Your task to perform on an android device: turn on translation in the chrome app Image 0: 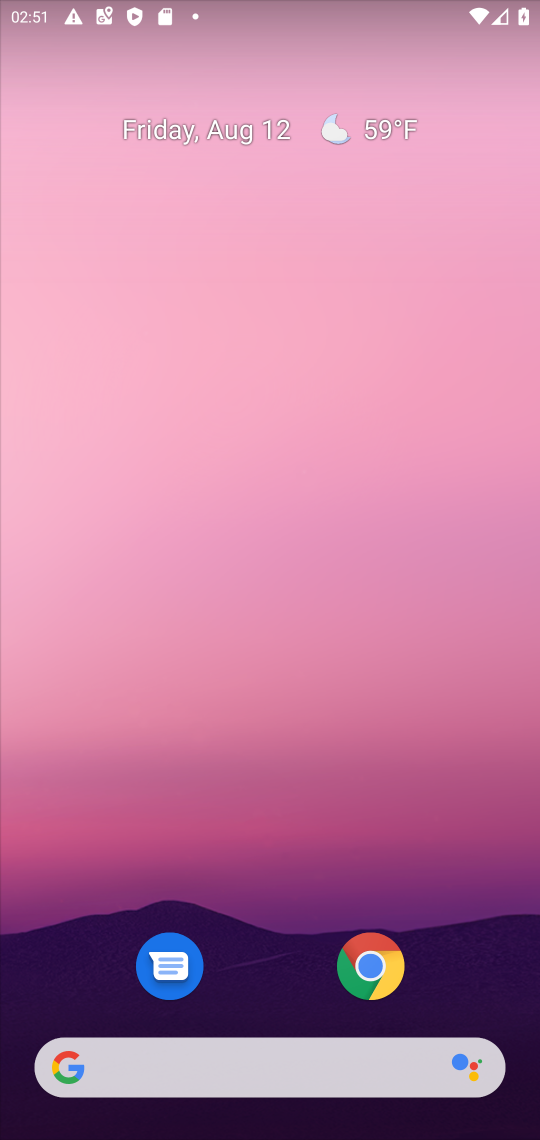
Step 0: click (378, 966)
Your task to perform on an android device: turn on translation in the chrome app Image 1: 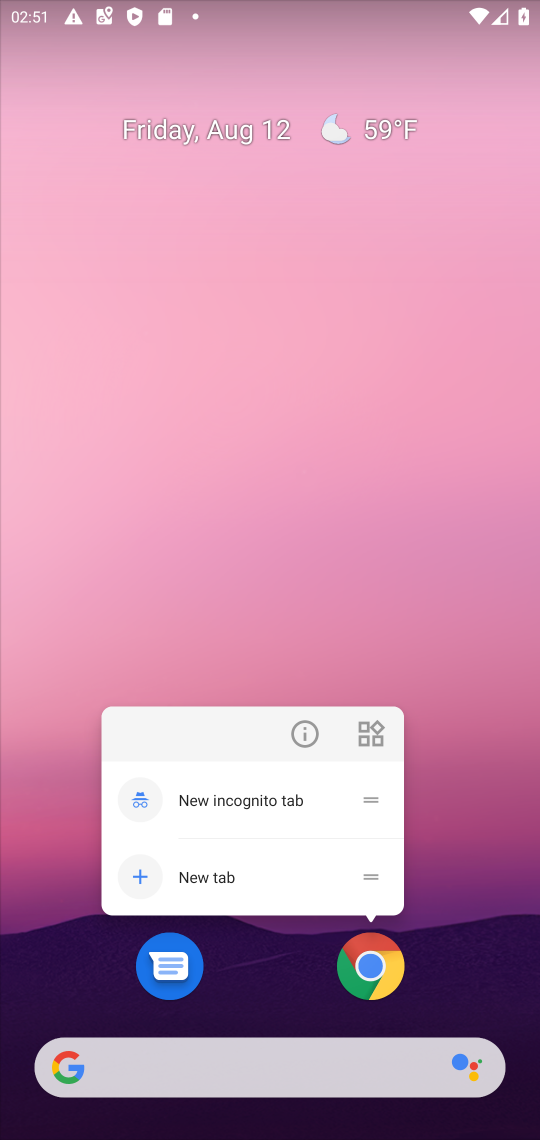
Step 1: click (374, 969)
Your task to perform on an android device: turn on translation in the chrome app Image 2: 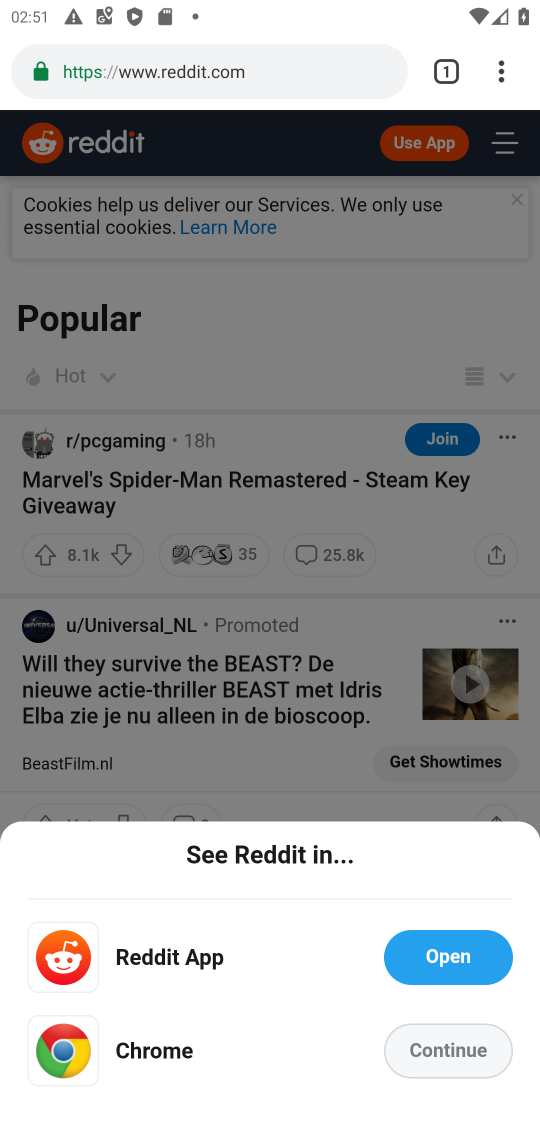
Step 2: drag from (515, 55) to (261, 868)
Your task to perform on an android device: turn on translation in the chrome app Image 3: 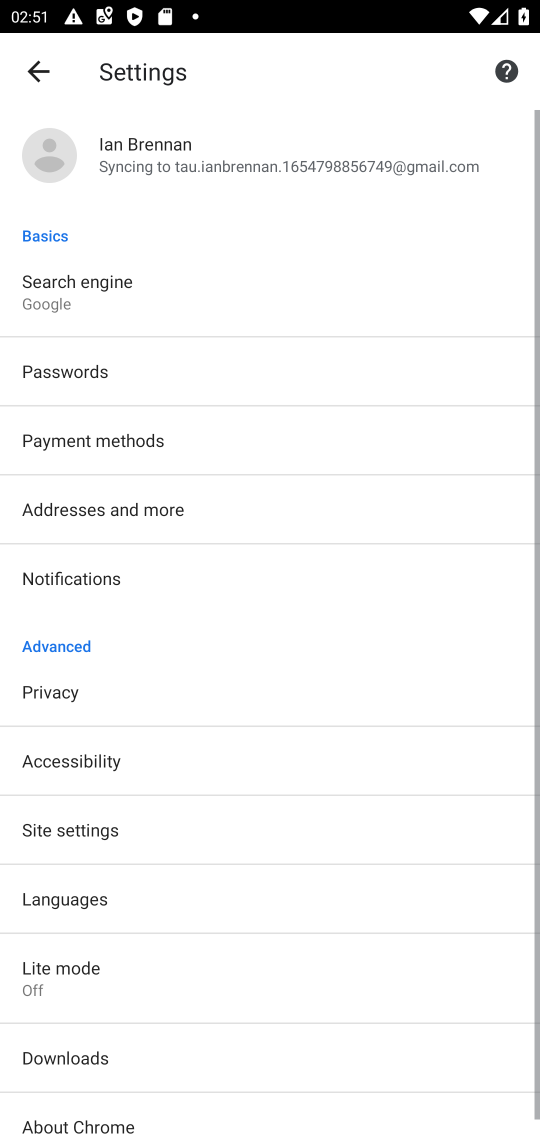
Step 3: drag from (254, 1049) to (397, 257)
Your task to perform on an android device: turn on translation in the chrome app Image 4: 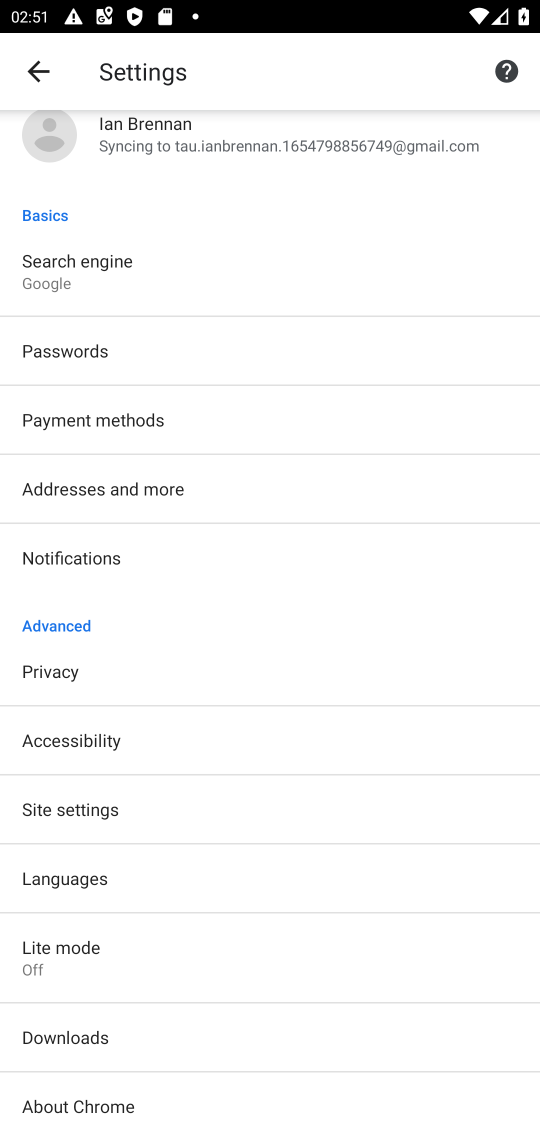
Step 4: click (87, 879)
Your task to perform on an android device: turn on translation in the chrome app Image 5: 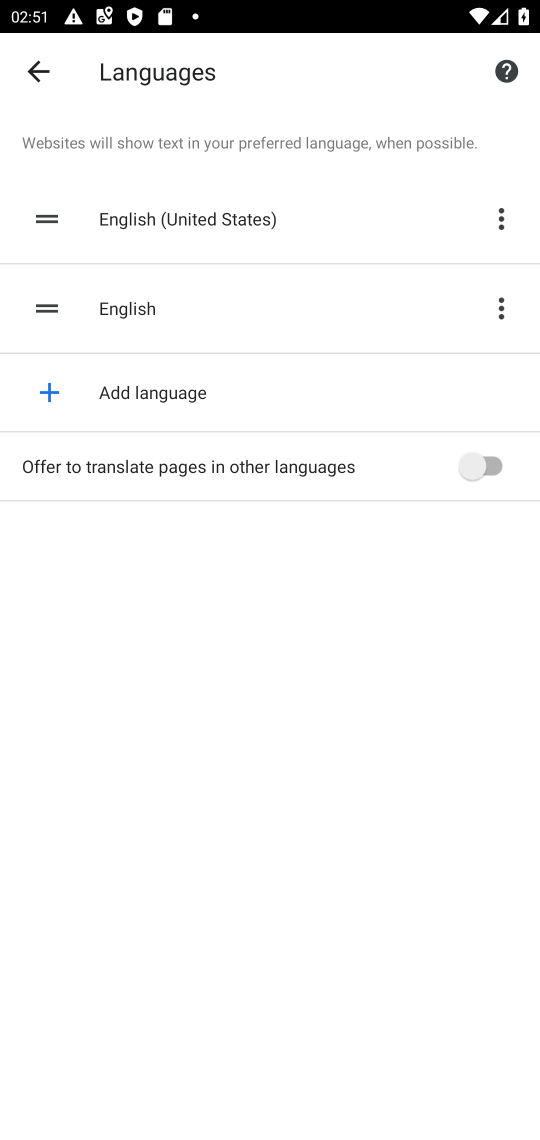
Step 5: click (468, 454)
Your task to perform on an android device: turn on translation in the chrome app Image 6: 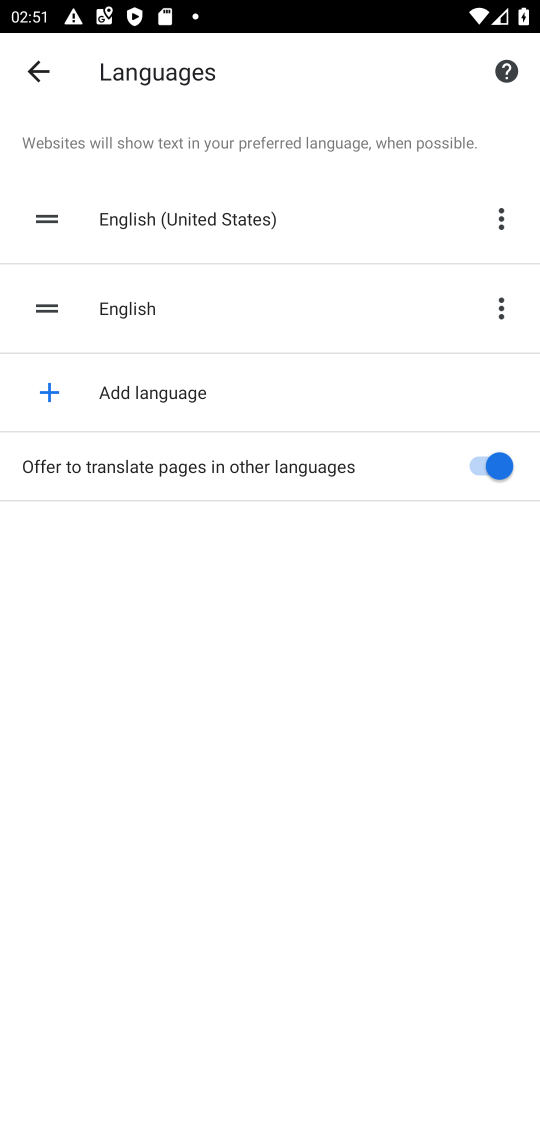
Step 6: task complete